Your task to perform on an android device: turn on wifi Image 0: 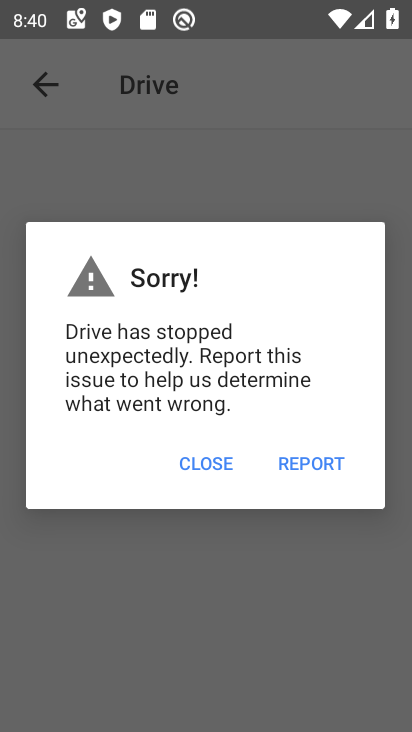
Step 0: press home button
Your task to perform on an android device: turn on wifi Image 1: 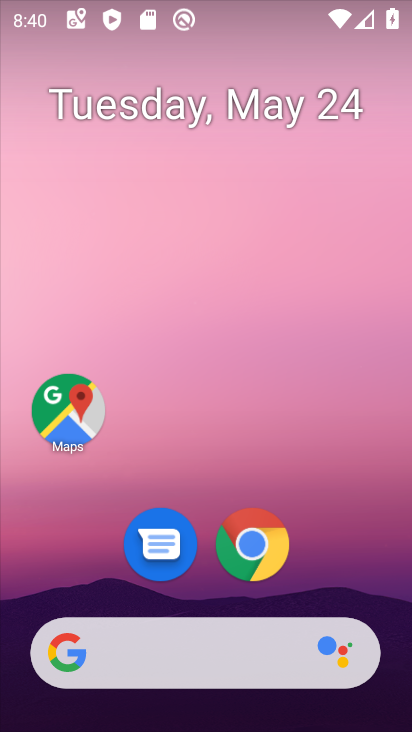
Step 1: click (411, 563)
Your task to perform on an android device: turn on wifi Image 2: 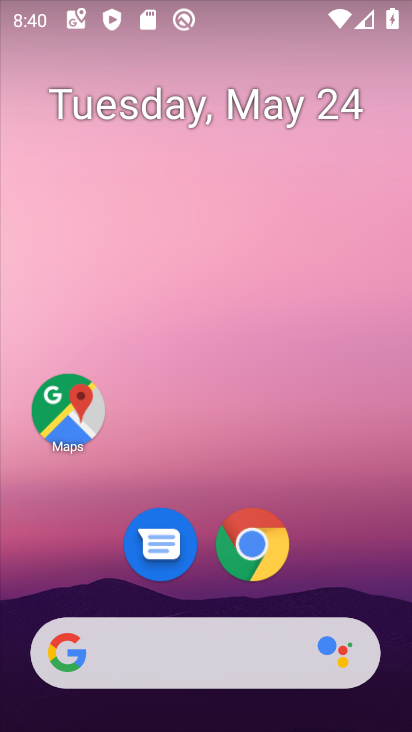
Step 2: drag from (390, 610) to (305, 128)
Your task to perform on an android device: turn on wifi Image 3: 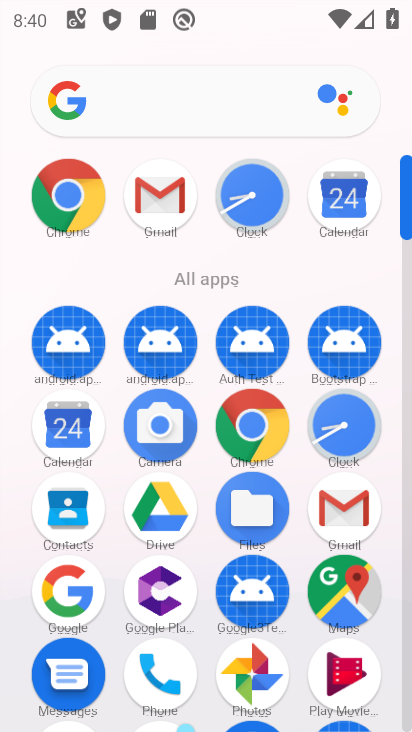
Step 3: click (408, 649)
Your task to perform on an android device: turn on wifi Image 4: 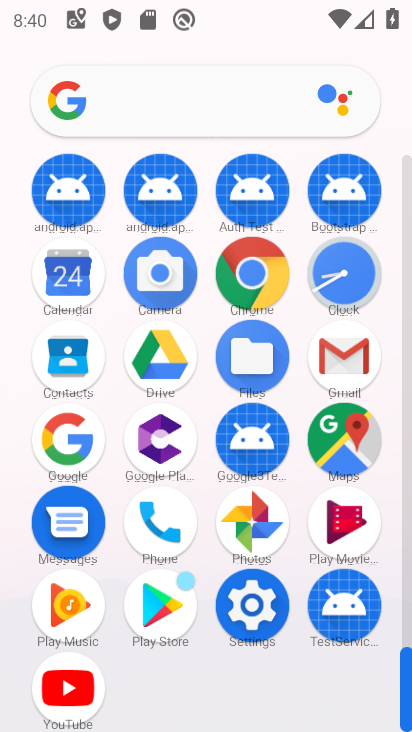
Step 4: click (270, 610)
Your task to perform on an android device: turn on wifi Image 5: 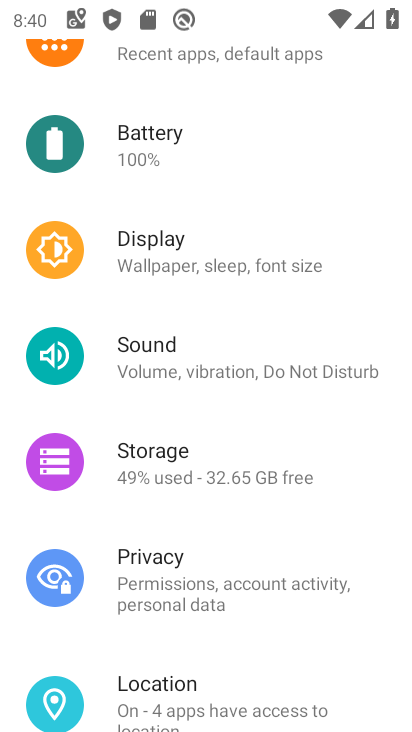
Step 5: drag from (243, 89) to (202, 702)
Your task to perform on an android device: turn on wifi Image 6: 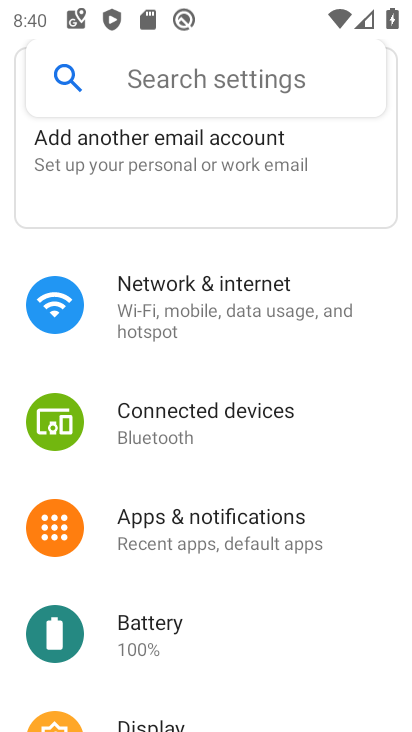
Step 6: click (187, 291)
Your task to perform on an android device: turn on wifi Image 7: 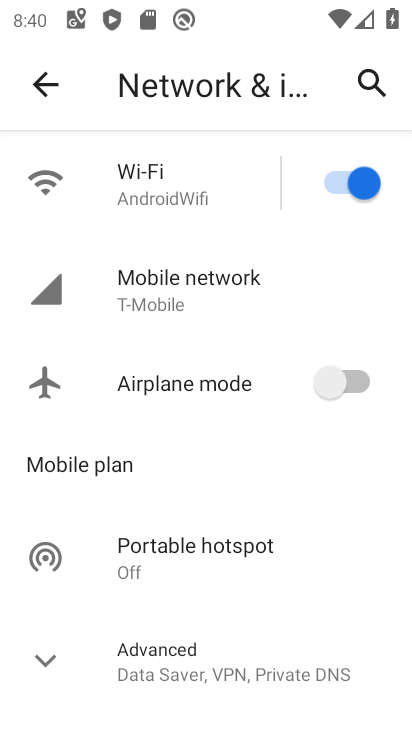
Step 7: task complete